Your task to perform on an android device: change alarm snooze length Image 0: 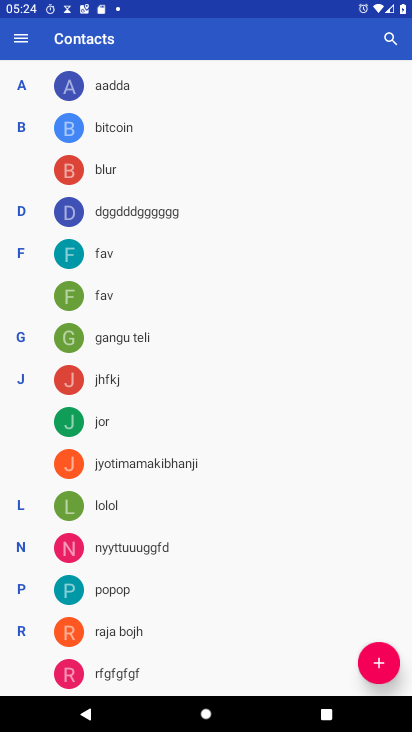
Step 0: press home button
Your task to perform on an android device: change alarm snooze length Image 1: 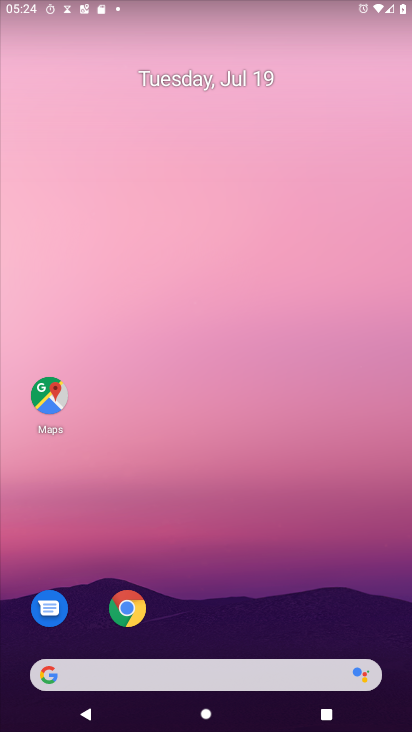
Step 1: drag from (203, 676) to (281, 149)
Your task to perform on an android device: change alarm snooze length Image 2: 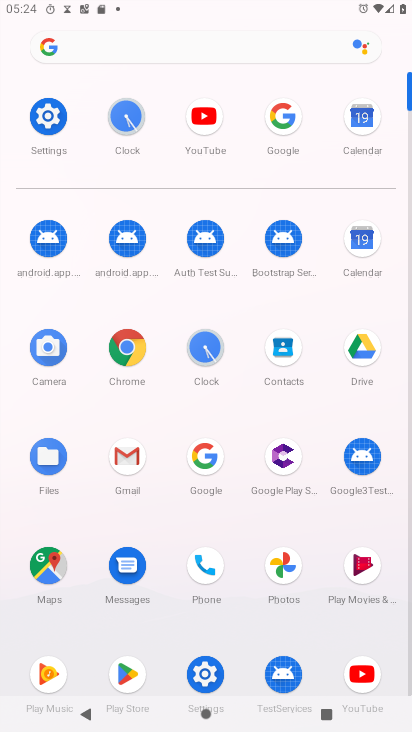
Step 2: click (204, 346)
Your task to perform on an android device: change alarm snooze length Image 3: 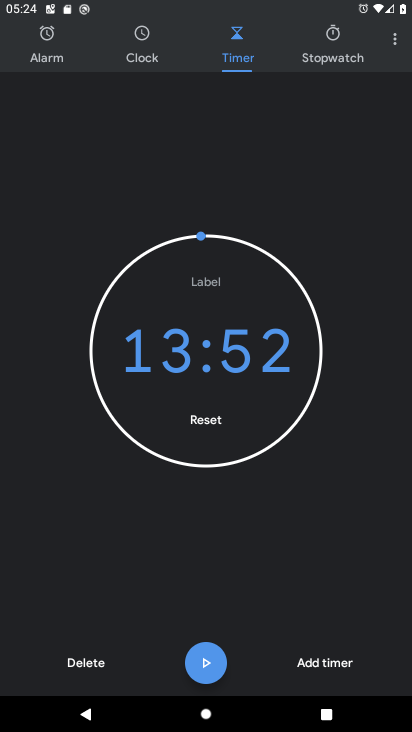
Step 3: click (395, 42)
Your task to perform on an android device: change alarm snooze length Image 4: 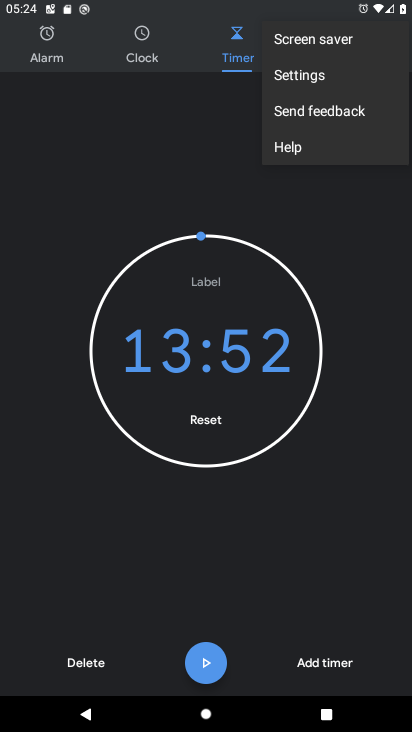
Step 4: click (316, 72)
Your task to perform on an android device: change alarm snooze length Image 5: 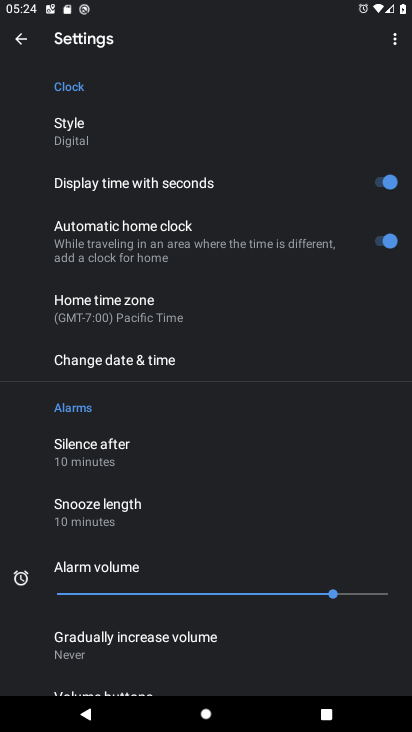
Step 5: click (96, 516)
Your task to perform on an android device: change alarm snooze length Image 6: 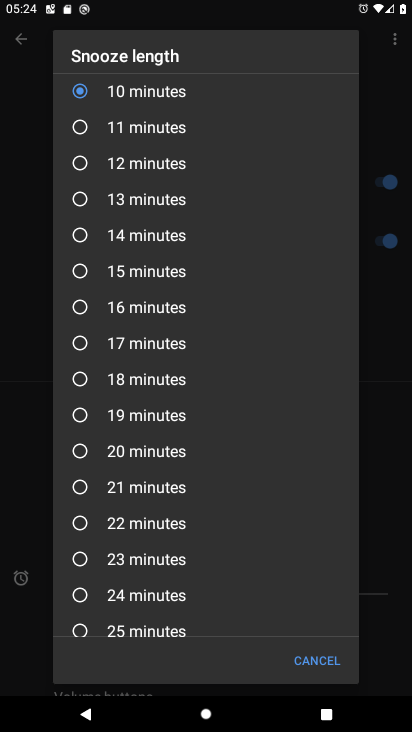
Step 6: click (84, 379)
Your task to perform on an android device: change alarm snooze length Image 7: 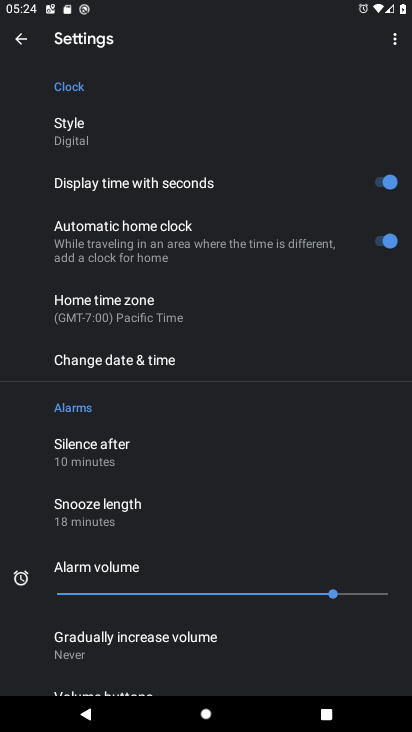
Step 7: task complete